Your task to perform on an android device: Open Yahoo.com Image 0: 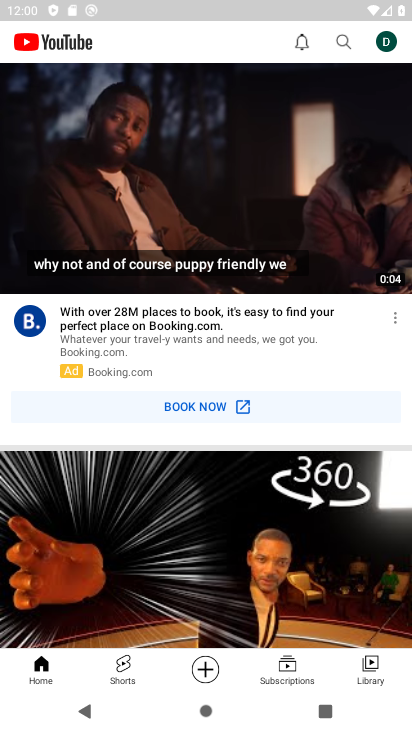
Step 0: press home button
Your task to perform on an android device: Open Yahoo.com Image 1: 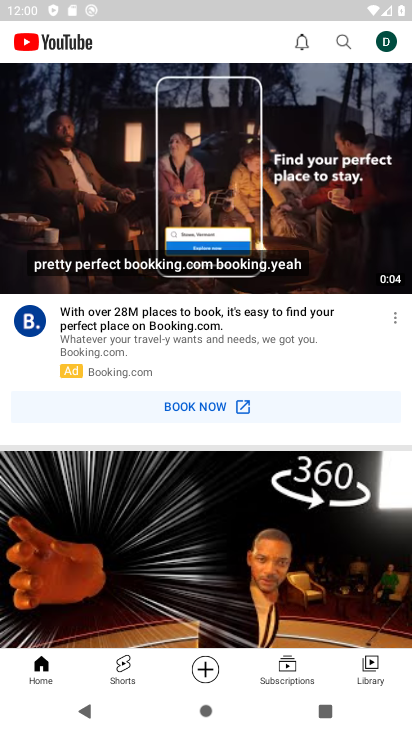
Step 1: press home button
Your task to perform on an android device: Open Yahoo.com Image 2: 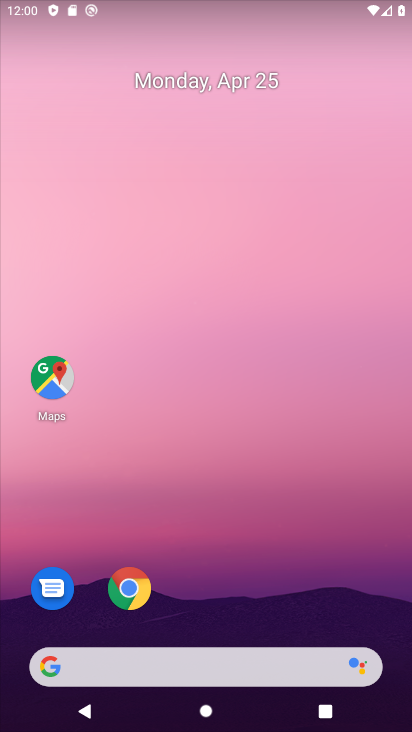
Step 2: click (128, 587)
Your task to perform on an android device: Open Yahoo.com Image 3: 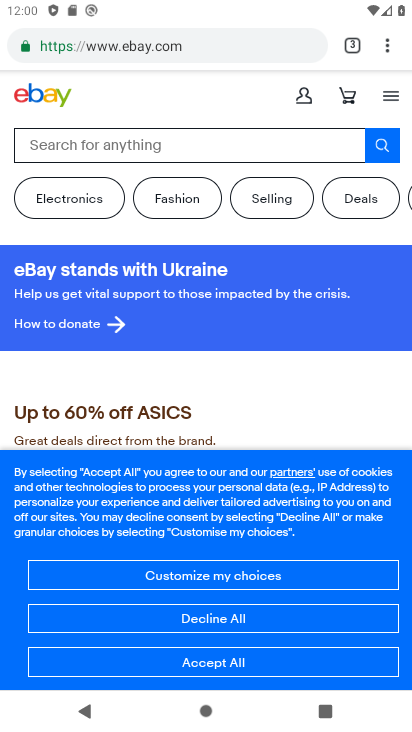
Step 3: click (350, 45)
Your task to perform on an android device: Open Yahoo.com Image 4: 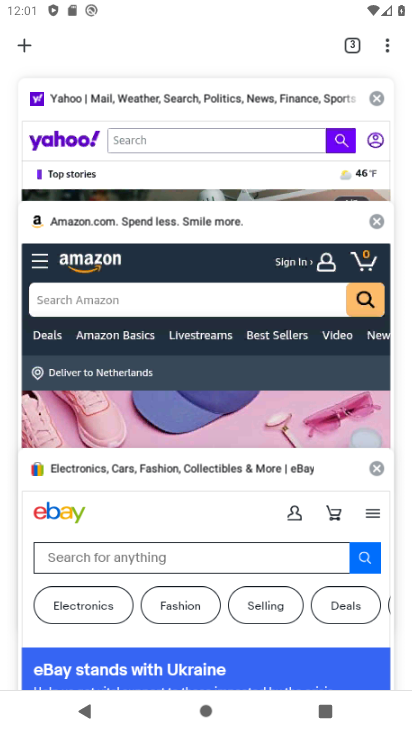
Step 4: click (103, 109)
Your task to perform on an android device: Open Yahoo.com Image 5: 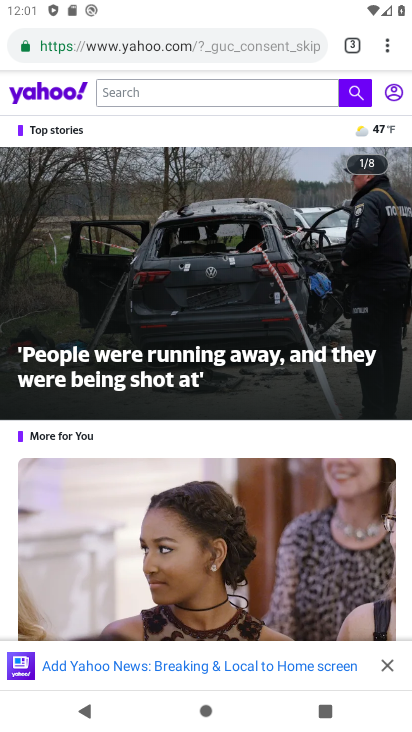
Step 5: task complete